Your task to perform on an android device: toggle notifications settings in the gmail app Image 0: 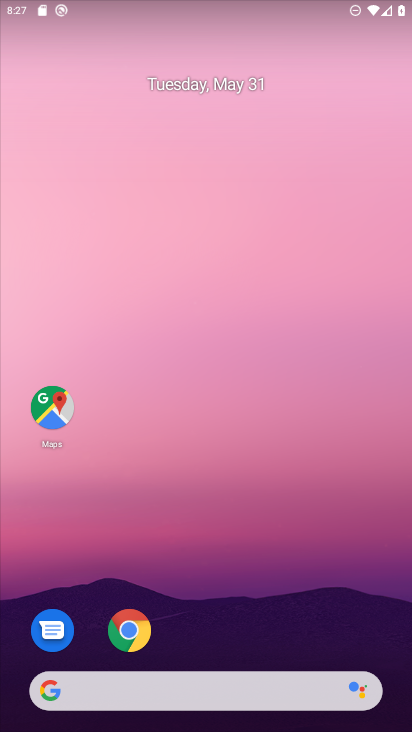
Step 0: drag from (330, 635) to (281, 141)
Your task to perform on an android device: toggle notifications settings in the gmail app Image 1: 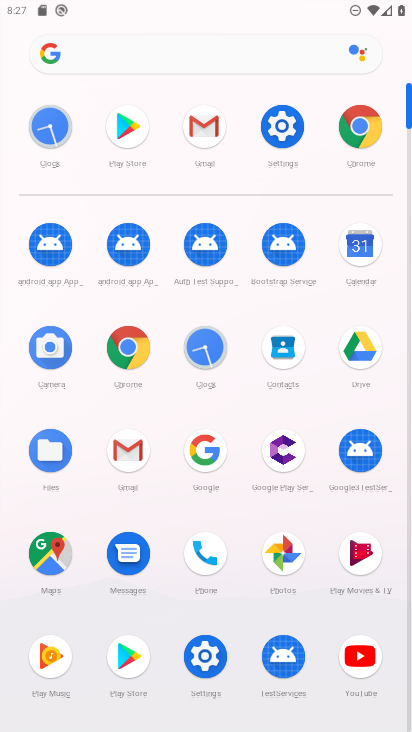
Step 1: click (214, 136)
Your task to perform on an android device: toggle notifications settings in the gmail app Image 2: 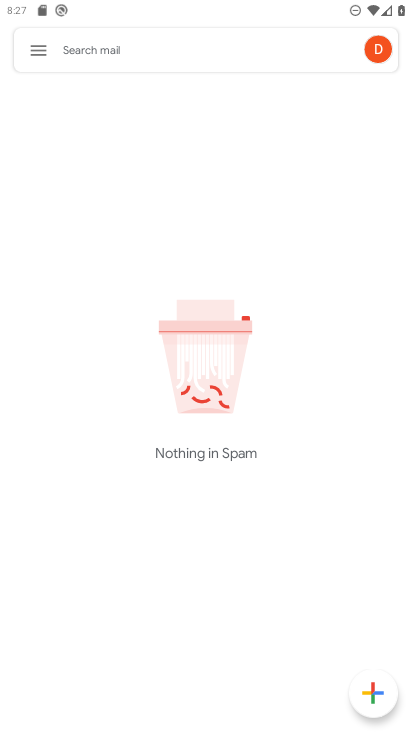
Step 2: click (33, 54)
Your task to perform on an android device: toggle notifications settings in the gmail app Image 3: 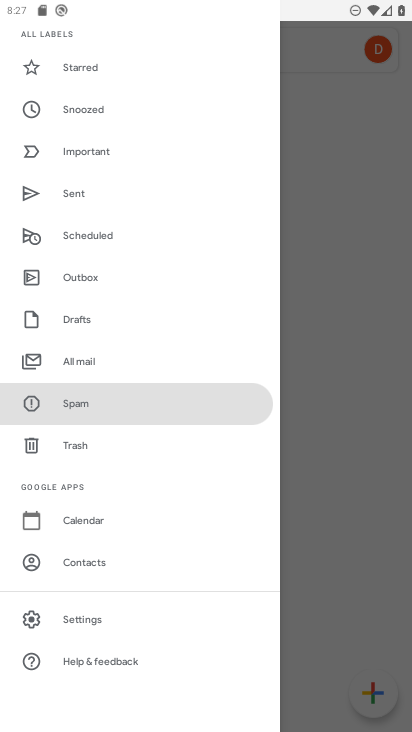
Step 3: click (74, 615)
Your task to perform on an android device: toggle notifications settings in the gmail app Image 4: 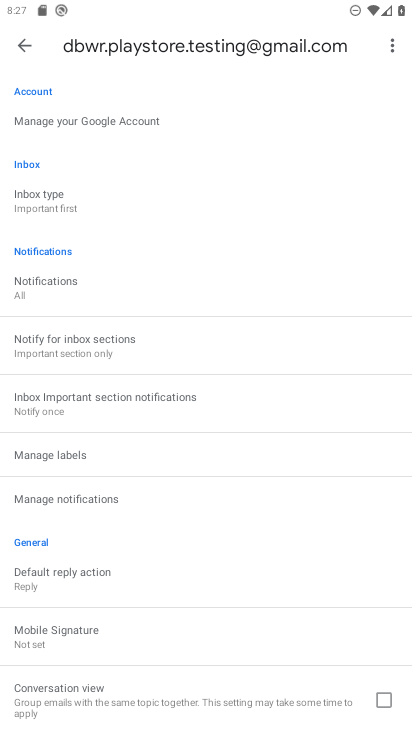
Step 4: click (65, 499)
Your task to perform on an android device: toggle notifications settings in the gmail app Image 5: 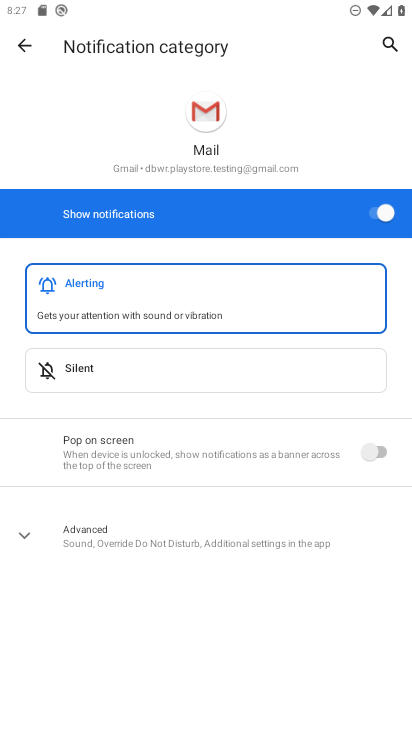
Step 5: click (379, 222)
Your task to perform on an android device: toggle notifications settings in the gmail app Image 6: 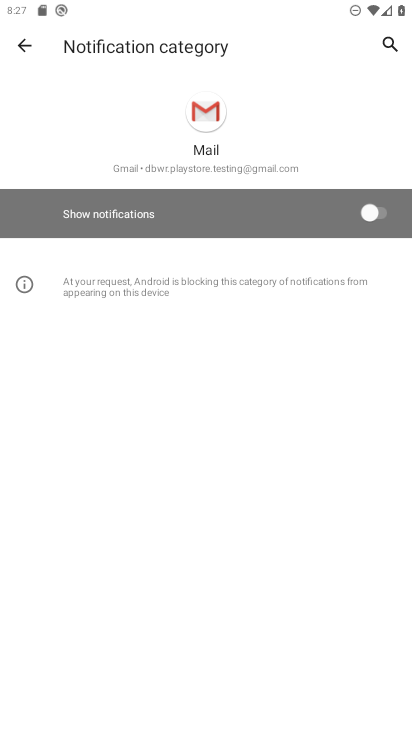
Step 6: task complete